Your task to perform on an android device: open app "Venmo" (install if not already installed), go to login, and select forgot password Image 0: 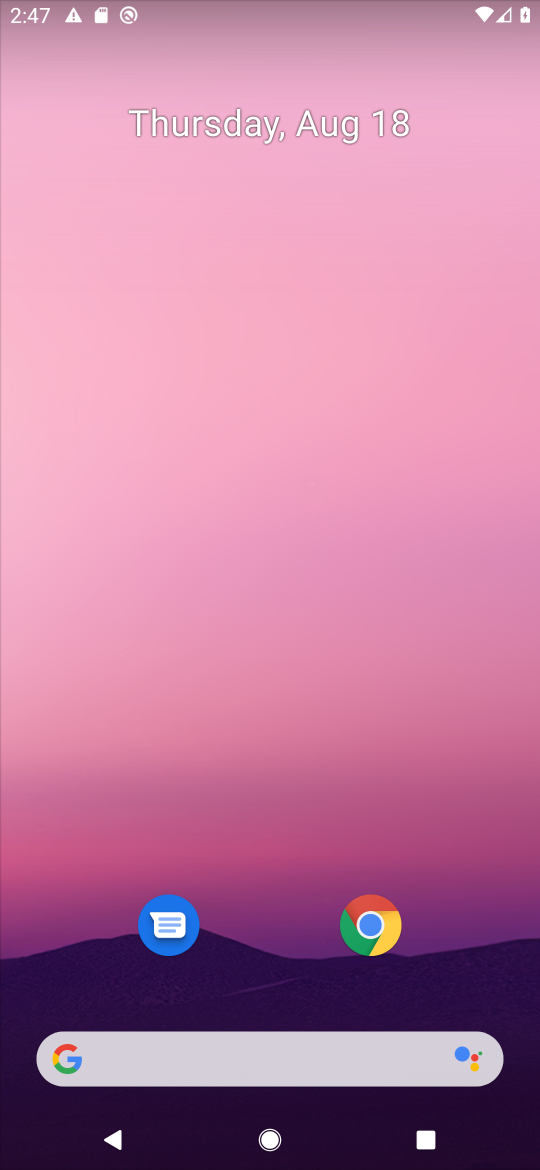
Step 0: drag from (255, 976) to (254, 3)
Your task to perform on an android device: open app "Venmo" (install if not already installed), go to login, and select forgot password Image 1: 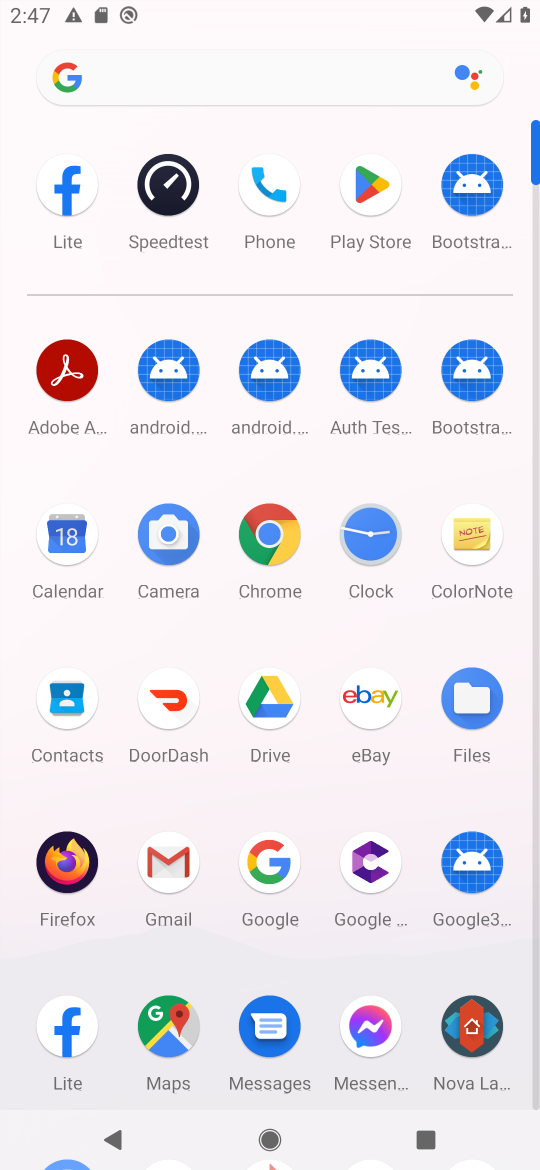
Step 1: click (371, 201)
Your task to perform on an android device: open app "Venmo" (install if not already installed), go to login, and select forgot password Image 2: 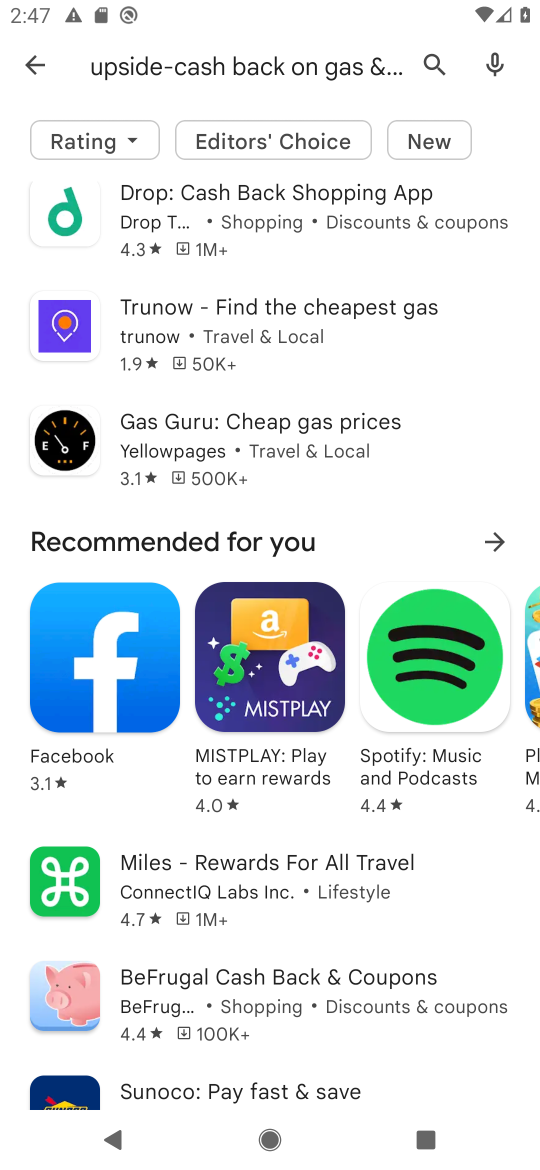
Step 2: click (33, 62)
Your task to perform on an android device: open app "Venmo" (install if not already installed), go to login, and select forgot password Image 3: 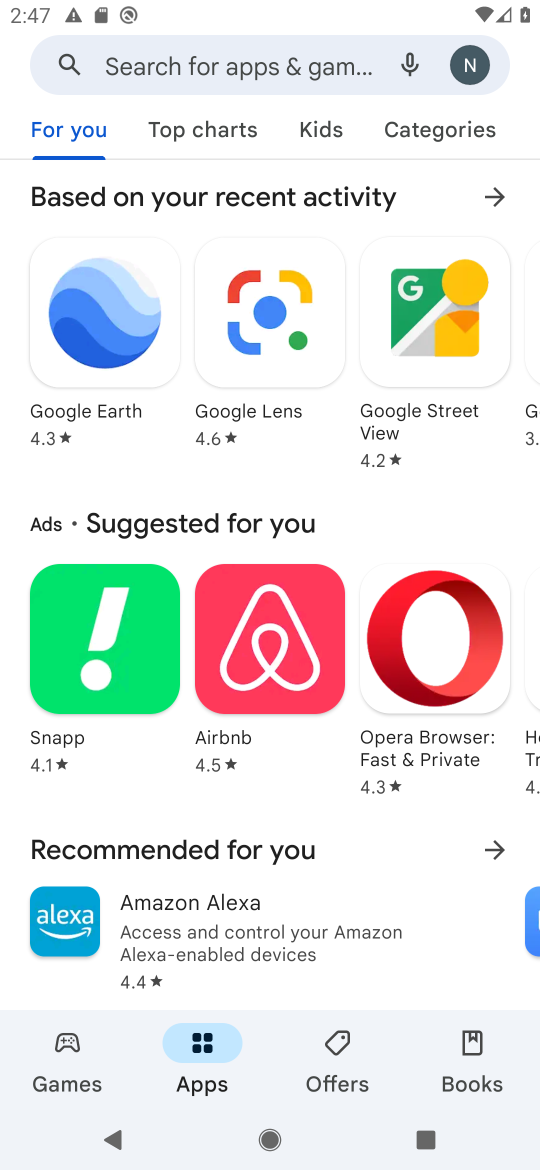
Step 3: click (245, 60)
Your task to perform on an android device: open app "Venmo" (install if not already installed), go to login, and select forgot password Image 4: 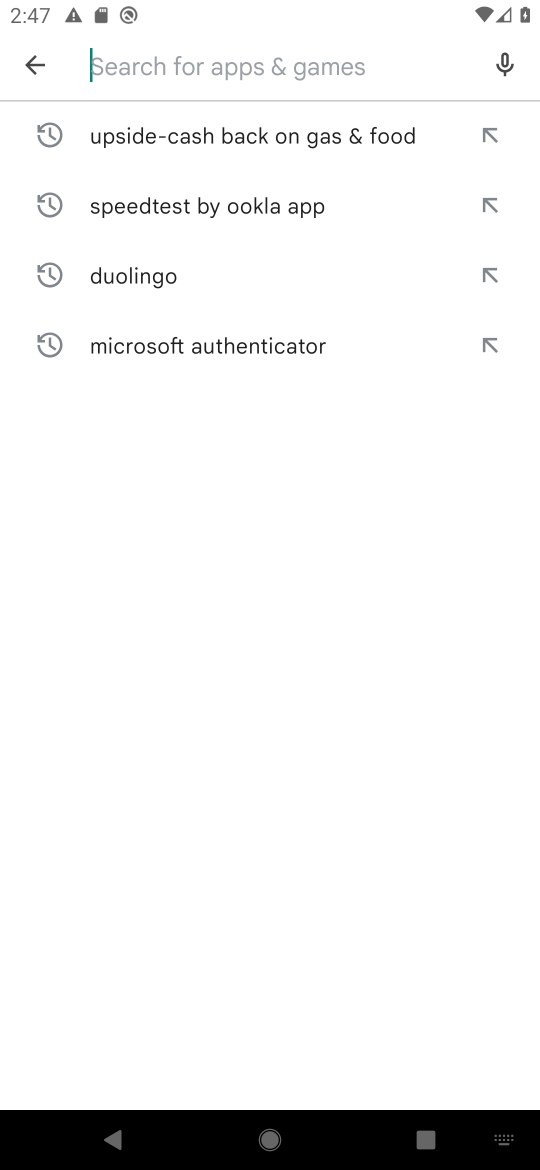
Step 4: type "Venmo"
Your task to perform on an android device: open app "Venmo" (install if not already installed), go to login, and select forgot password Image 5: 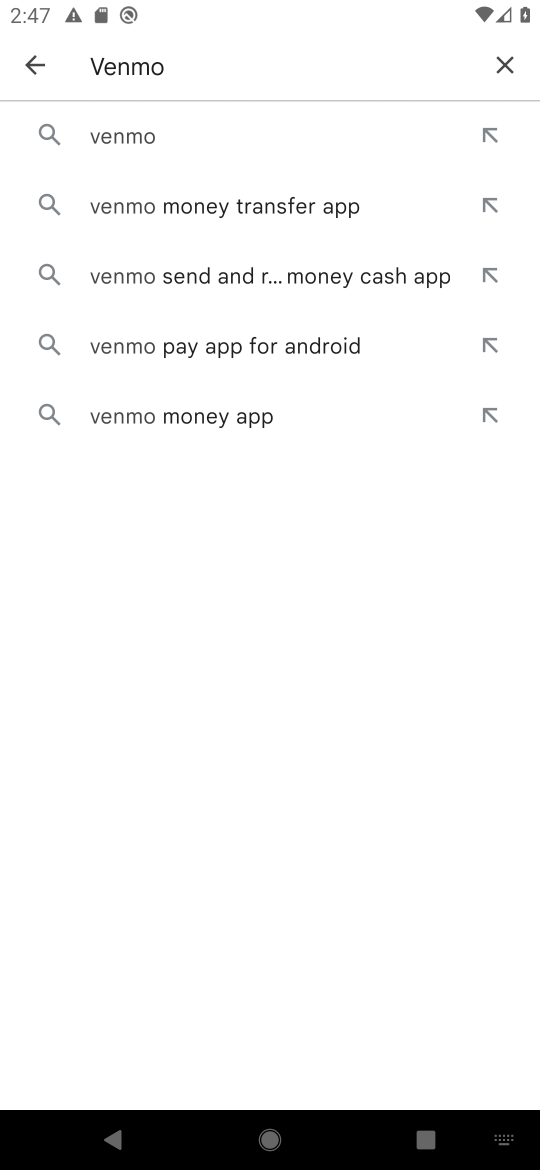
Step 5: click (116, 131)
Your task to perform on an android device: open app "Venmo" (install if not already installed), go to login, and select forgot password Image 6: 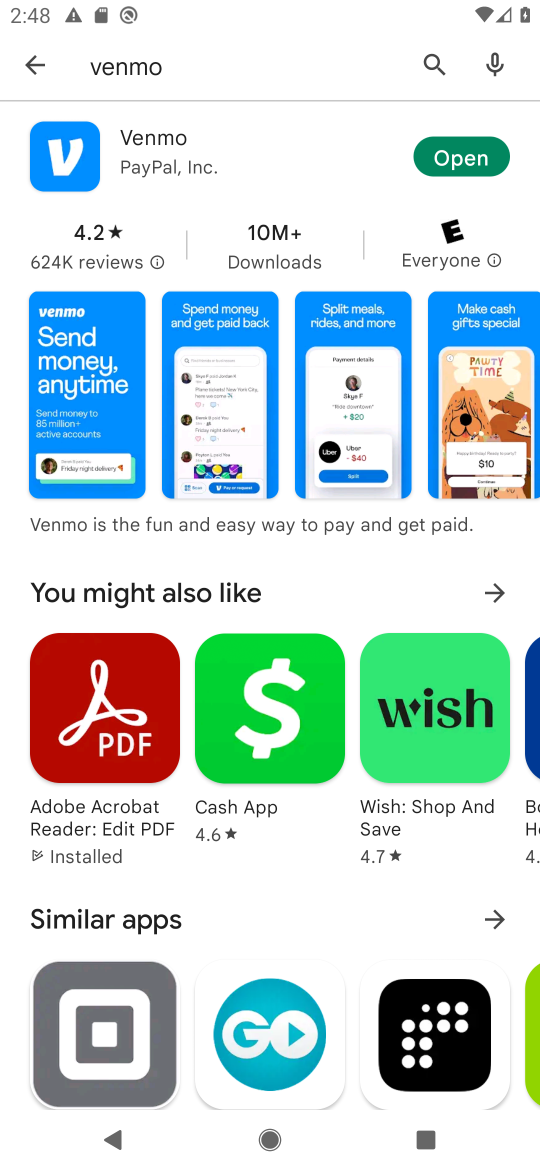
Step 6: click (452, 172)
Your task to perform on an android device: open app "Venmo" (install if not already installed), go to login, and select forgot password Image 7: 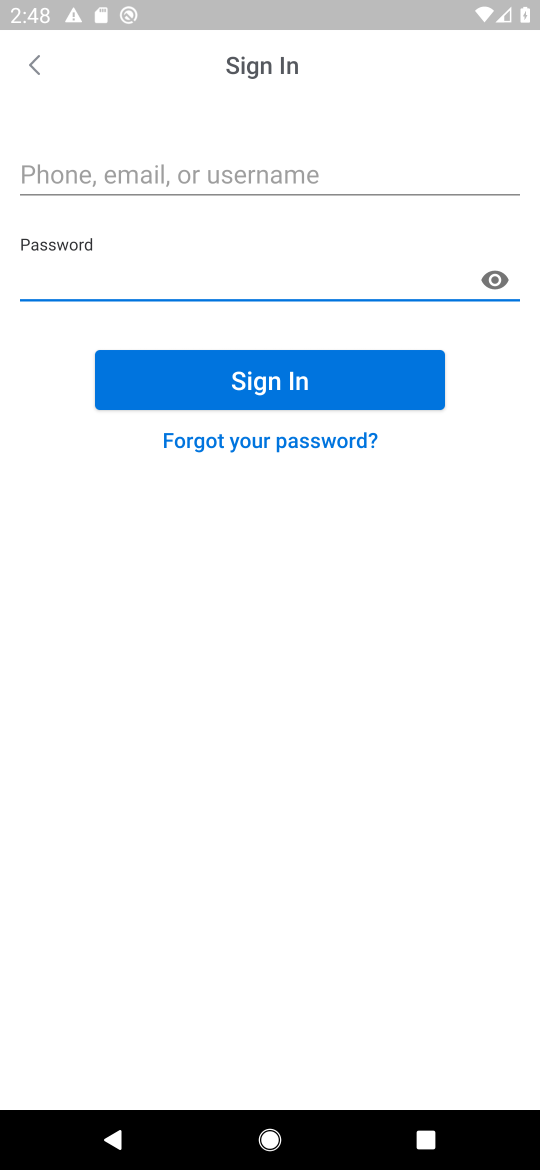
Step 7: task complete